Your task to perform on an android device: Open Amazon Image 0: 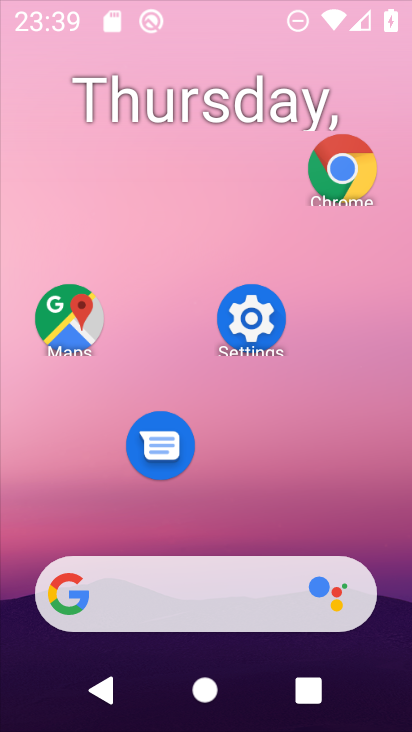
Step 0: click (306, 154)
Your task to perform on an android device: Open Amazon Image 1: 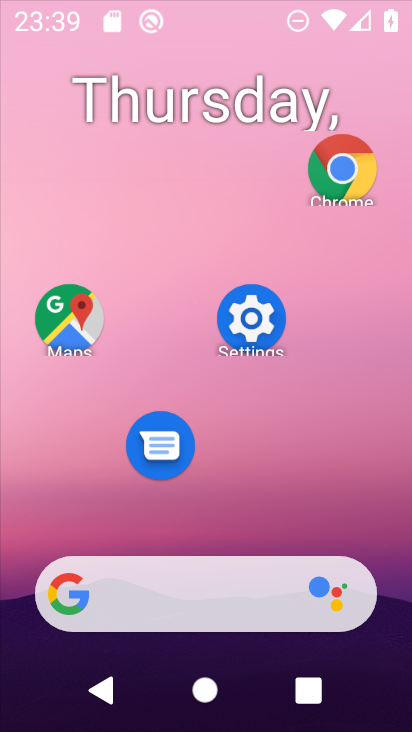
Step 1: drag from (196, 538) to (255, 191)
Your task to perform on an android device: Open Amazon Image 2: 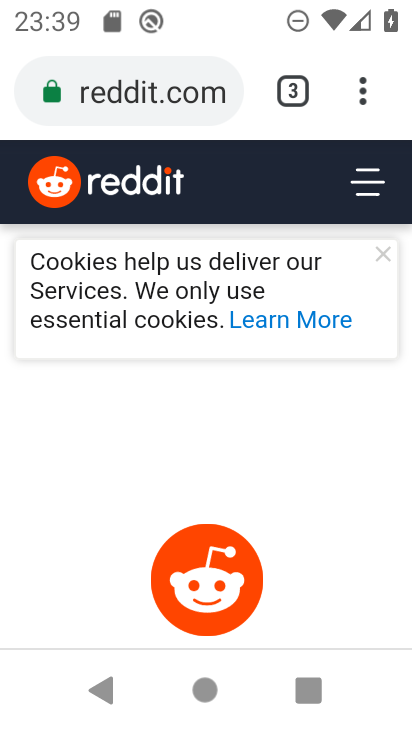
Step 2: drag from (268, 544) to (304, 235)
Your task to perform on an android device: Open Amazon Image 3: 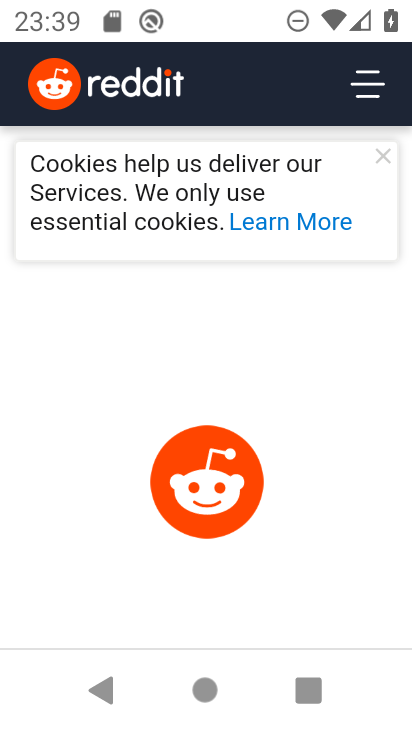
Step 3: drag from (313, 124) to (308, 721)
Your task to perform on an android device: Open Amazon Image 4: 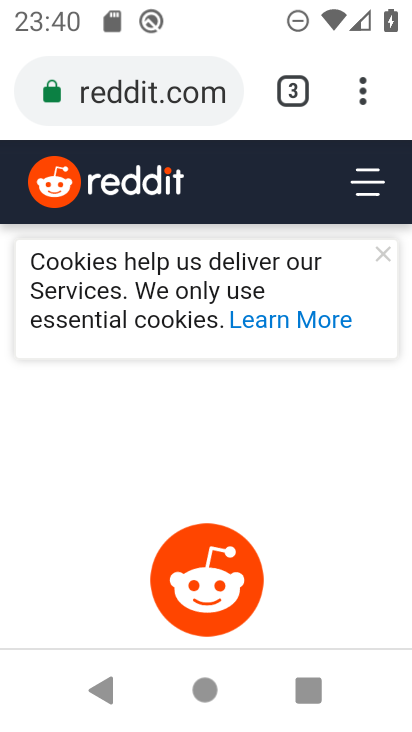
Step 4: click (285, 79)
Your task to perform on an android device: Open Amazon Image 5: 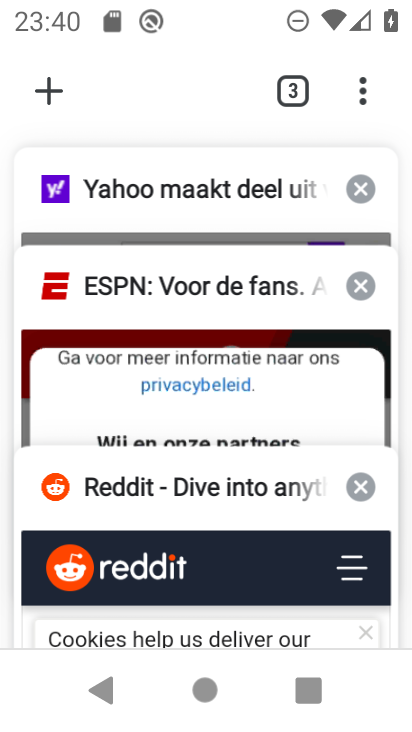
Step 5: click (34, 82)
Your task to perform on an android device: Open Amazon Image 6: 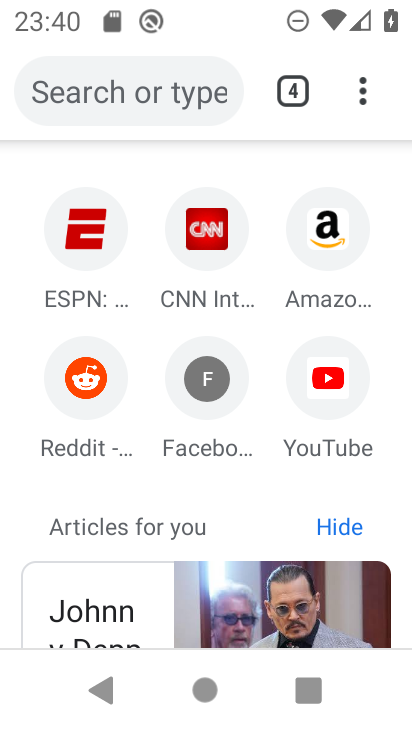
Step 6: click (374, 202)
Your task to perform on an android device: Open Amazon Image 7: 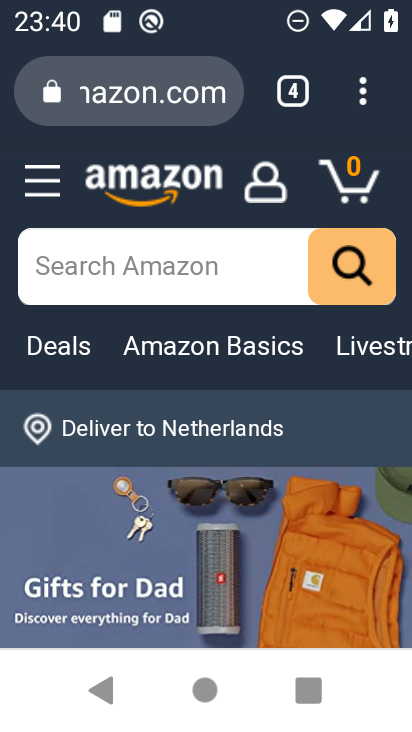
Step 7: task complete